Your task to perform on an android device: toggle sleep mode Image 0: 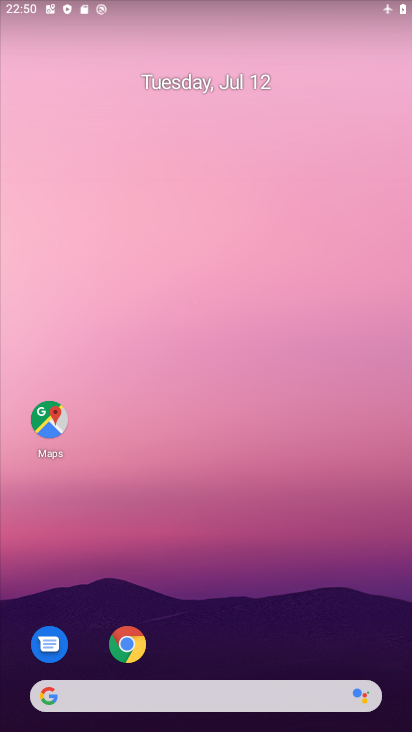
Step 0: drag from (124, 722) to (342, 39)
Your task to perform on an android device: toggle sleep mode Image 1: 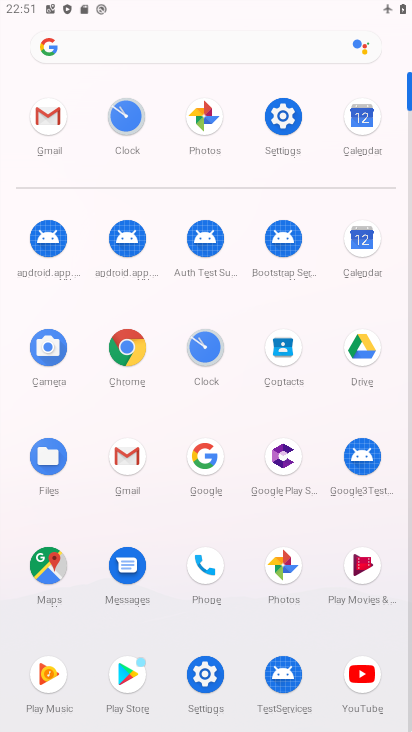
Step 1: click (275, 119)
Your task to perform on an android device: toggle sleep mode Image 2: 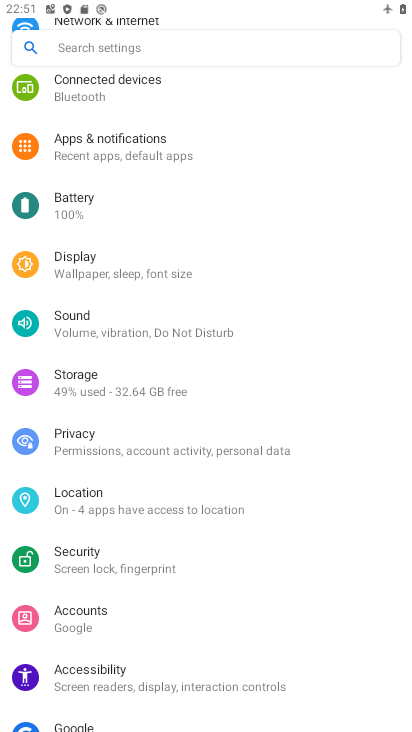
Step 2: click (126, 270)
Your task to perform on an android device: toggle sleep mode Image 3: 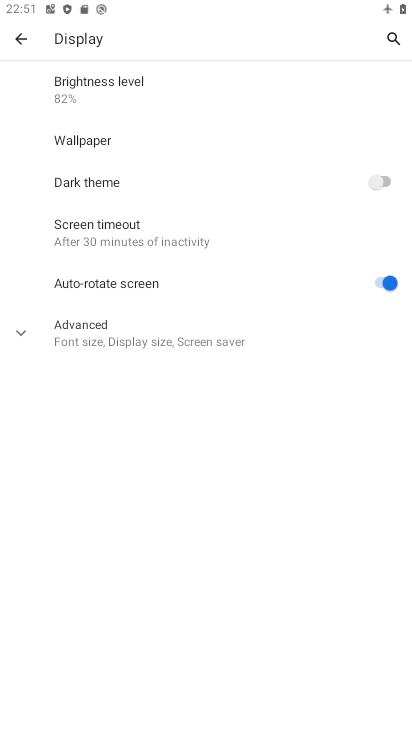
Step 3: task complete